Your task to perform on an android device: turn off improve location accuracy Image 0: 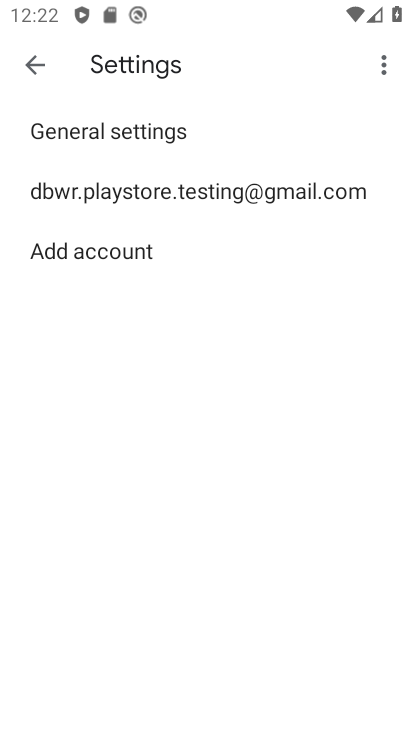
Step 0: press back button
Your task to perform on an android device: turn off improve location accuracy Image 1: 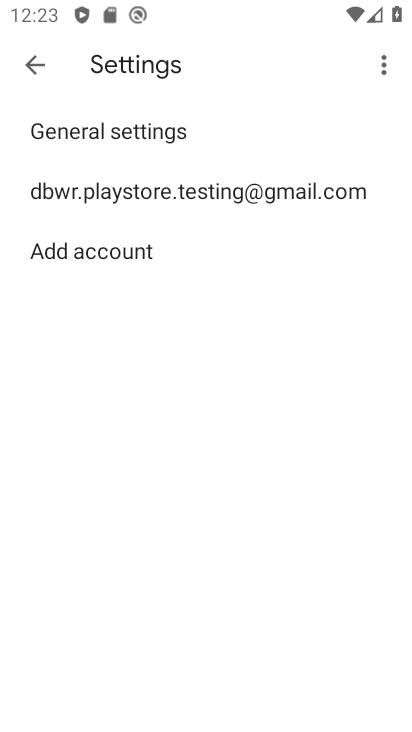
Step 1: press back button
Your task to perform on an android device: turn off improve location accuracy Image 2: 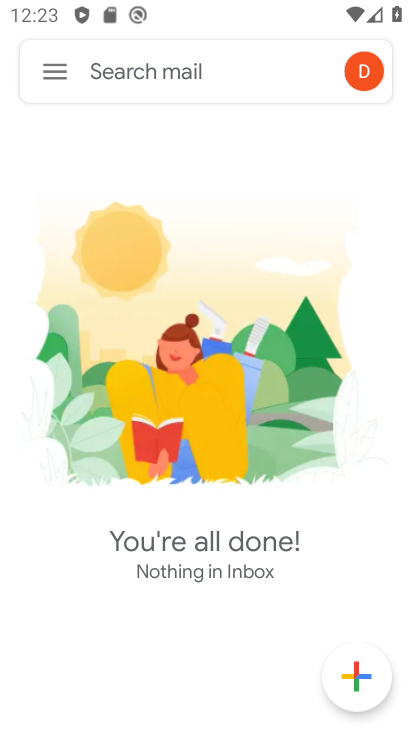
Step 2: press back button
Your task to perform on an android device: turn off improve location accuracy Image 3: 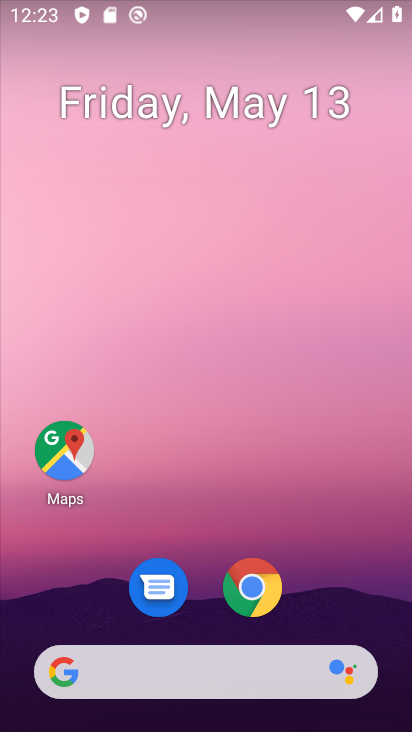
Step 3: drag from (99, 598) to (277, 88)
Your task to perform on an android device: turn off improve location accuracy Image 4: 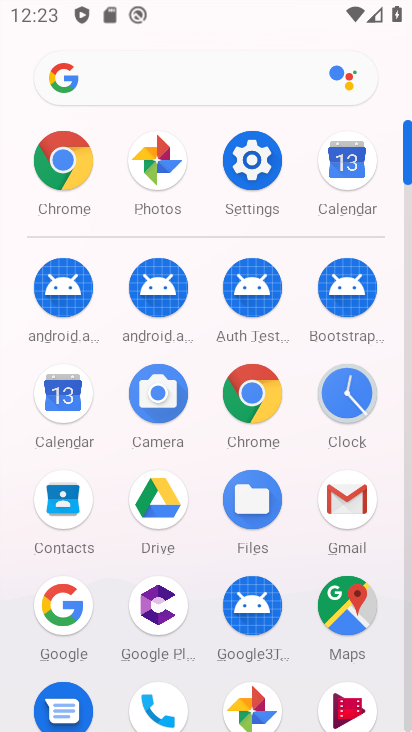
Step 4: click (249, 161)
Your task to perform on an android device: turn off improve location accuracy Image 5: 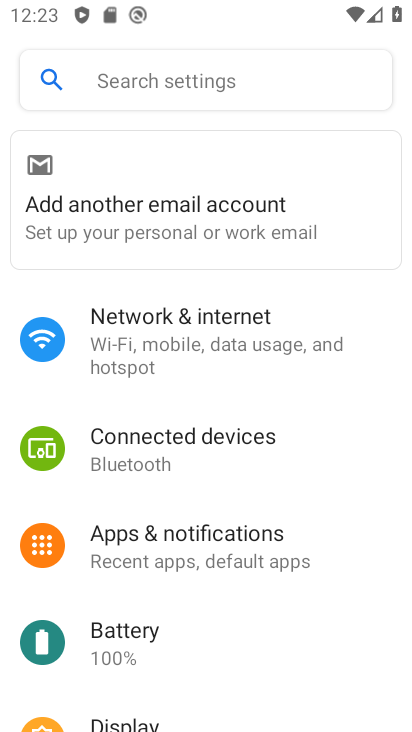
Step 5: drag from (153, 643) to (228, 173)
Your task to perform on an android device: turn off improve location accuracy Image 6: 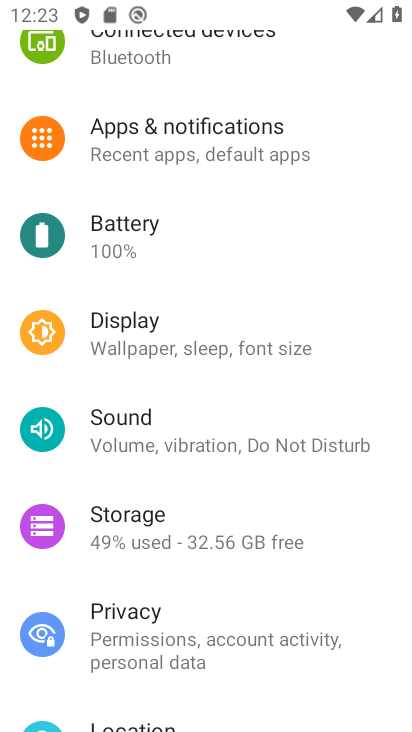
Step 6: drag from (195, 205) to (321, 59)
Your task to perform on an android device: turn off improve location accuracy Image 7: 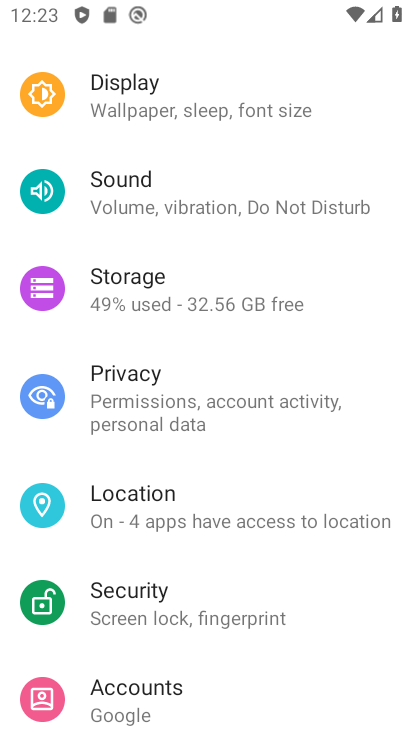
Step 7: click (122, 509)
Your task to perform on an android device: turn off improve location accuracy Image 8: 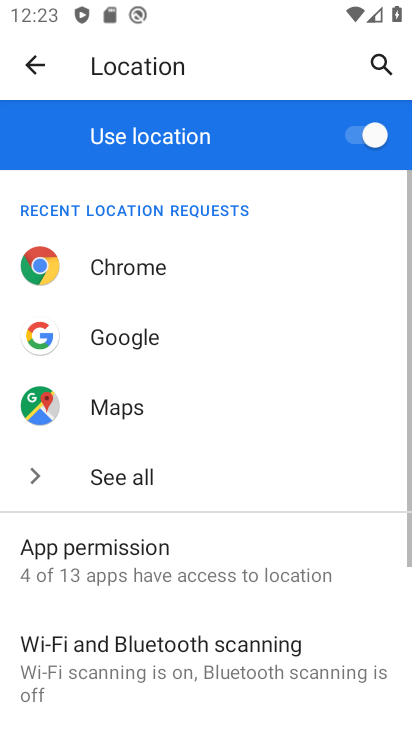
Step 8: drag from (162, 660) to (284, 174)
Your task to perform on an android device: turn off improve location accuracy Image 9: 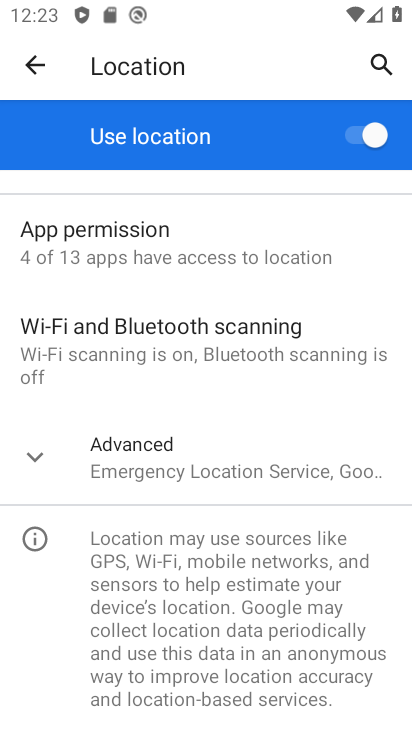
Step 9: click (150, 460)
Your task to perform on an android device: turn off improve location accuracy Image 10: 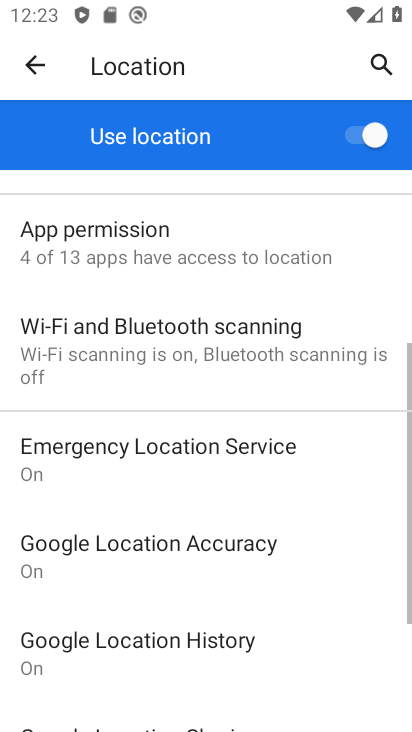
Step 10: drag from (141, 611) to (193, 394)
Your task to perform on an android device: turn off improve location accuracy Image 11: 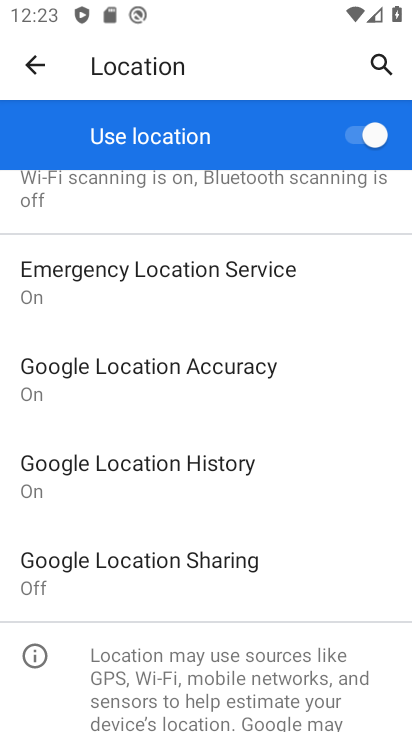
Step 11: click (126, 382)
Your task to perform on an android device: turn off improve location accuracy Image 12: 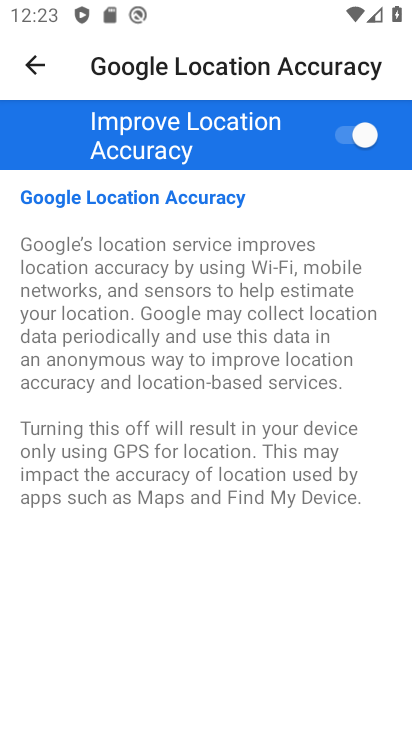
Step 12: click (342, 145)
Your task to perform on an android device: turn off improve location accuracy Image 13: 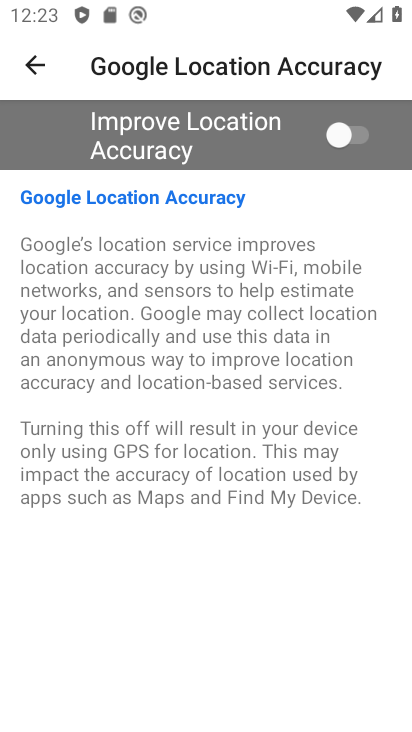
Step 13: task complete